Your task to perform on an android device: Open Youtube and go to "Your channel" Image 0: 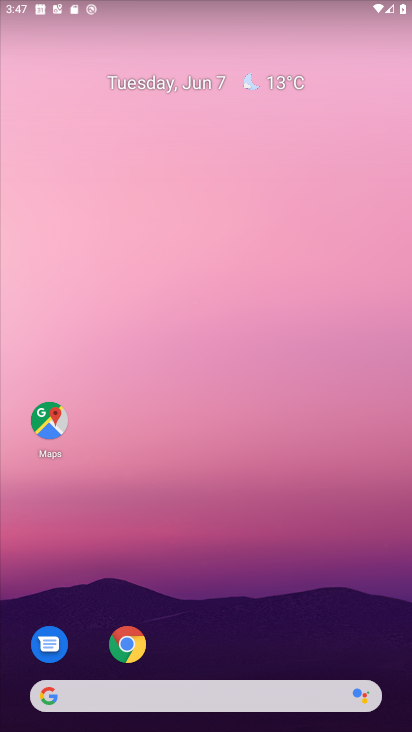
Step 0: drag from (338, 627) to (353, 184)
Your task to perform on an android device: Open Youtube and go to "Your channel" Image 1: 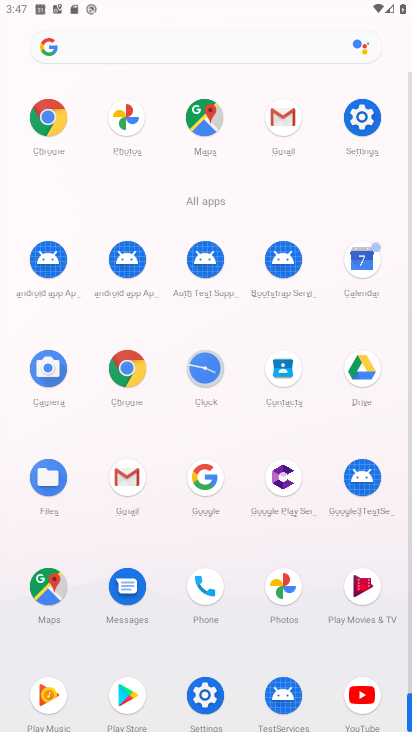
Step 1: click (370, 694)
Your task to perform on an android device: Open Youtube and go to "Your channel" Image 2: 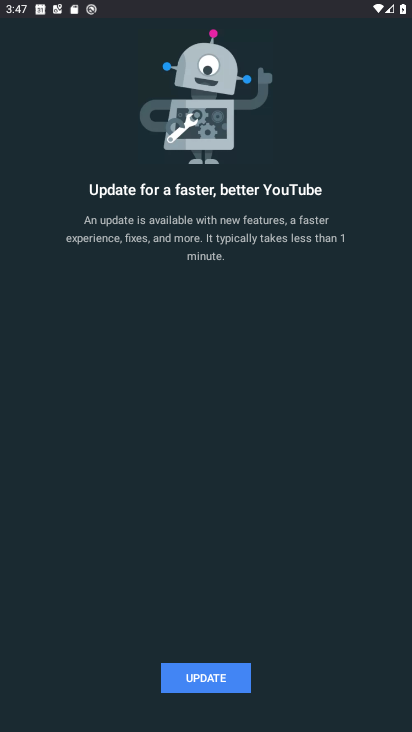
Step 2: click (231, 694)
Your task to perform on an android device: Open Youtube and go to "Your channel" Image 3: 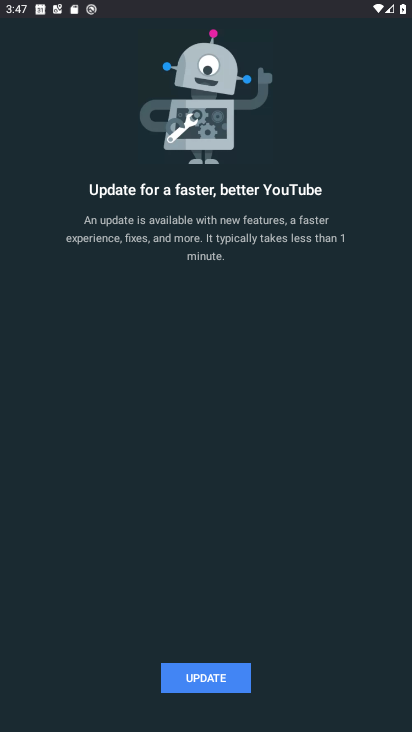
Step 3: click (183, 690)
Your task to perform on an android device: Open Youtube and go to "Your channel" Image 4: 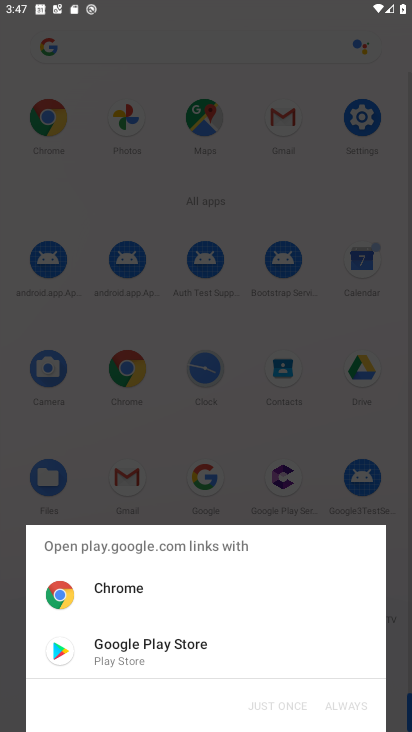
Step 4: click (174, 671)
Your task to perform on an android device: Open Youtube and go to "Your channel" Image 5: 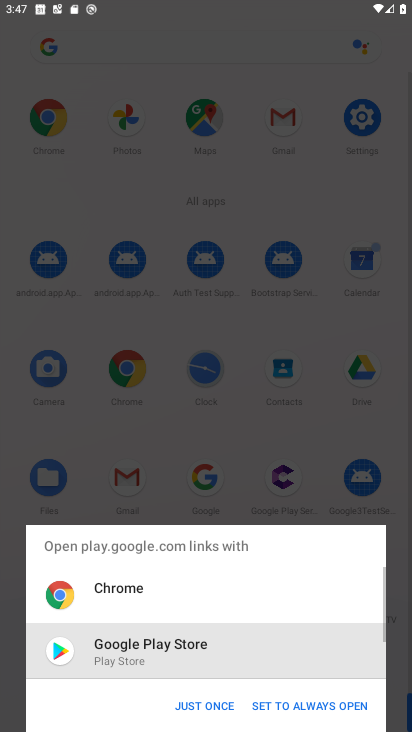
Step 5: click (221, 708)
Your task to perform on an android device: Open Youtube and go to "Your channel" Image 6: 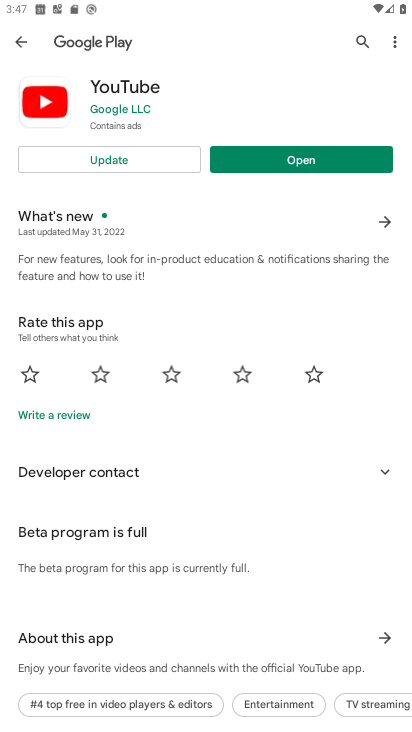
Step 6: click (156, 162)
Your task to perform on an android device: Open Youtube and go to "Your channel" Image 7: 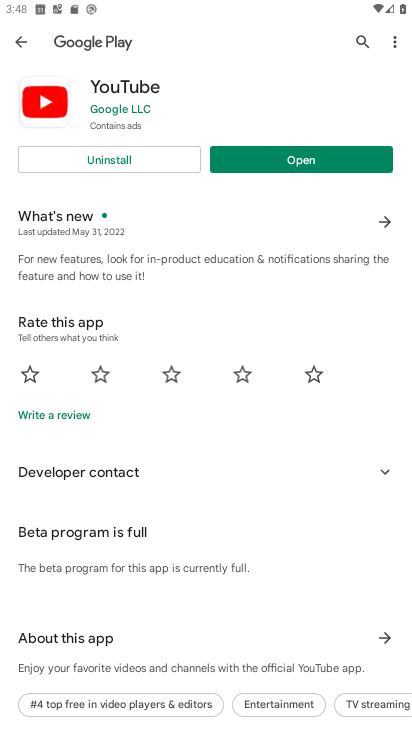
Step 7: click (326, 162)
Your task to perform on an android device: Open Youtube and go to "Your channel" Image 8: 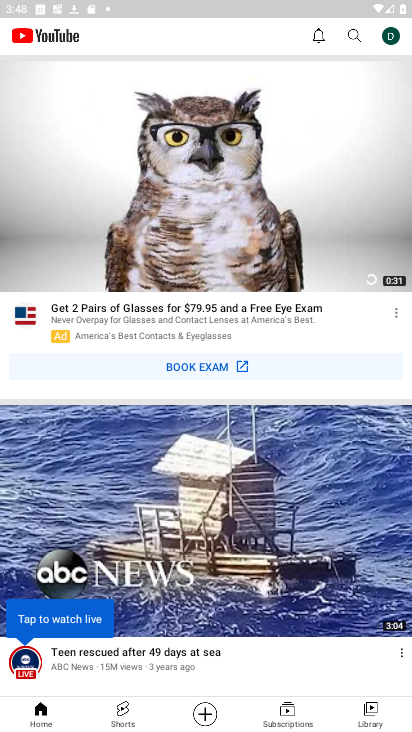
Step 8: click (390, 34)
Your task to perform on an android device: Open Youtube and go to "Your channel" Image 9: 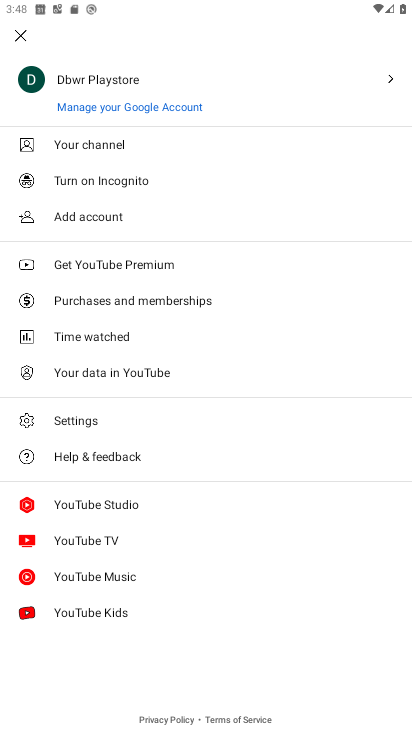
Step 9: click (94, 150)
Your task to perform on an android device: Open Youtube and go to "Your channel" Image 10: 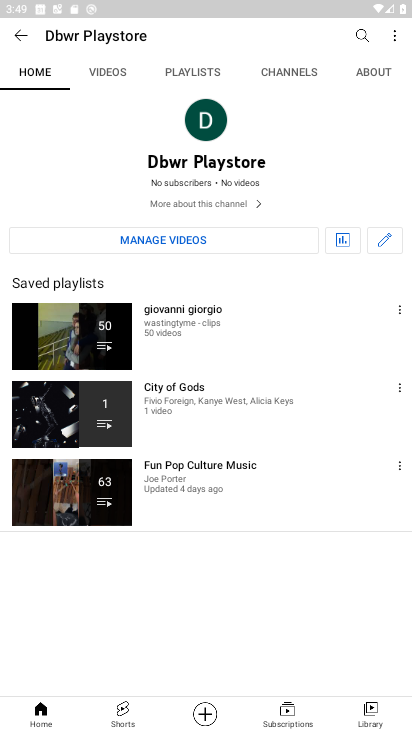
Step 10: task complete